Your task to perform on an android device: What's the weather going to be tomorrow? Image 0: 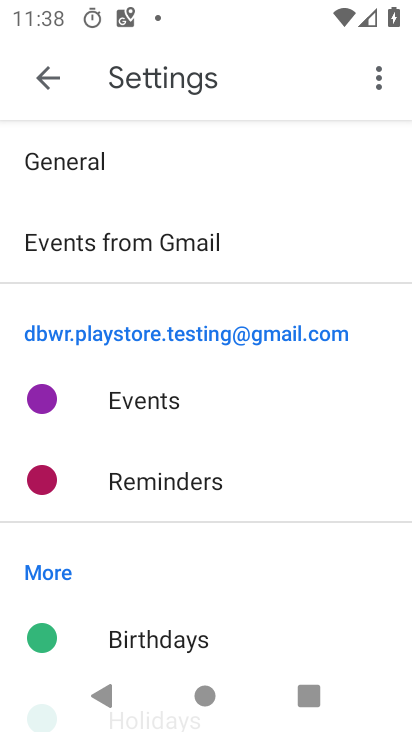
Step 0: press home button
Your task to perform on an android device: What's the weather going to be tomorrow? Image 1: 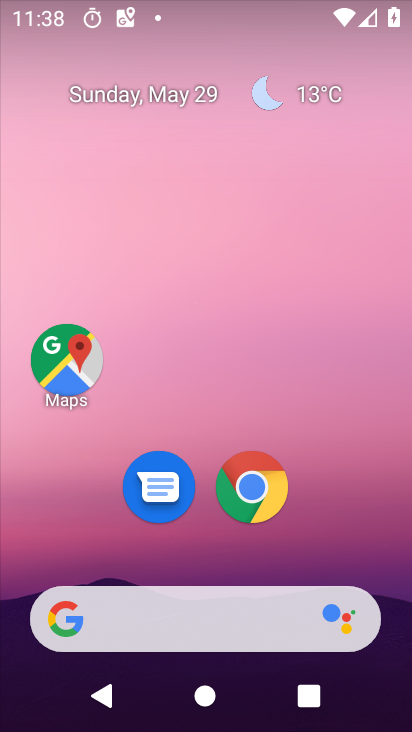
Step 1: click (325, 92)
Your task to perform on an android device: What's the weather going to be tomorrow? Image 2: 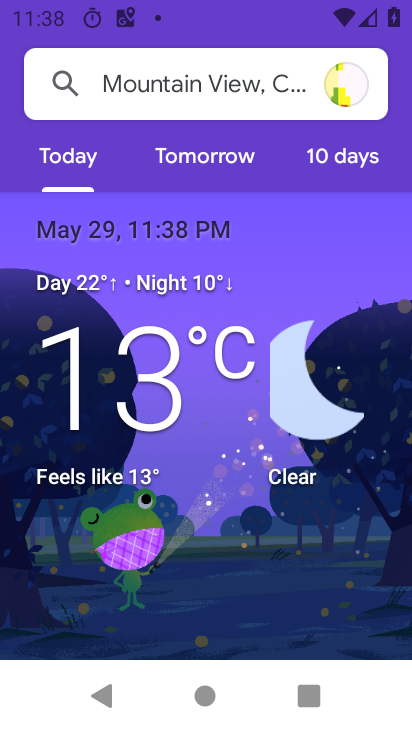
Step 2: click (254, 159)
Your task to perform on an android device: What's the weather going to be tomorrow? Image 3: 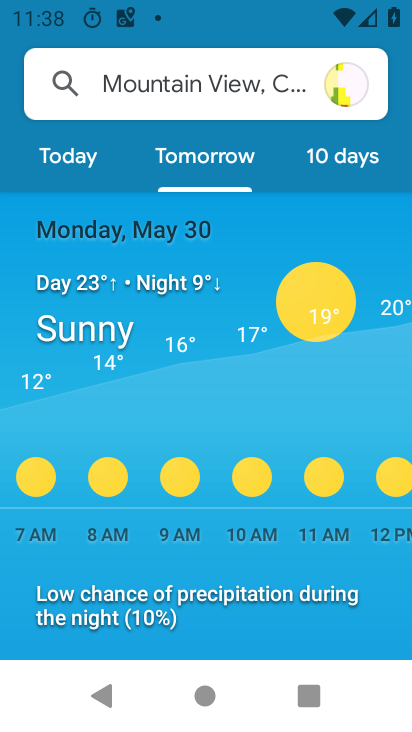
Step 3: task complete